Your task to perform on an android device: toggle notification dots Image 0: 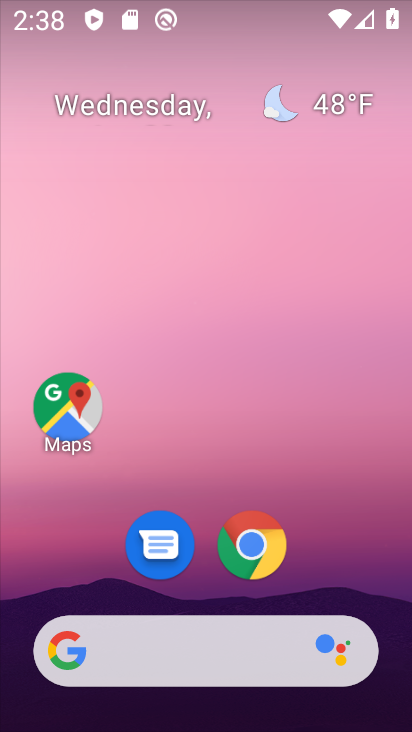
Step 0: drag from (319, 590) to (286, 124)
Your task to perform on an android device: toggle notification dots Image 1: 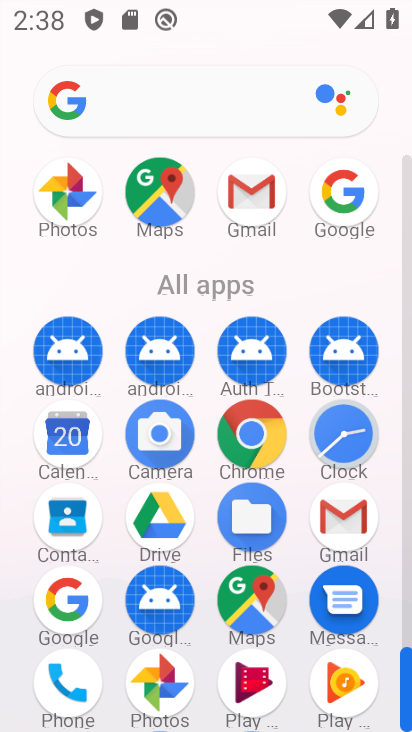
Step 1: drag from (213, 563) to (230, 159)
Your task to perform on an android device: toggle notification dots Image 2: 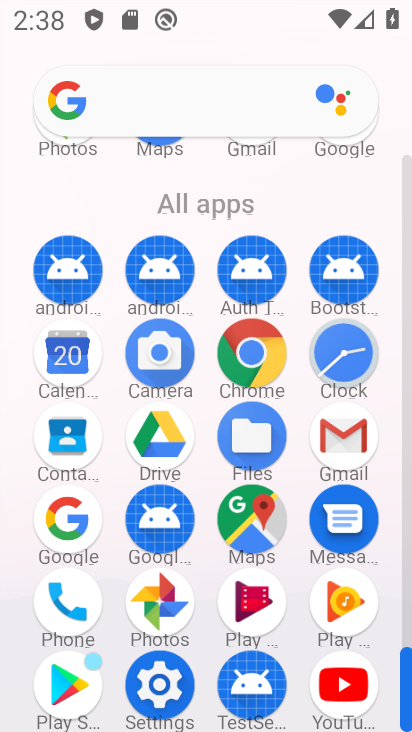
Step 2: click (183, 674)
Your task to perform on an android device: toggle notification dots Image 3: 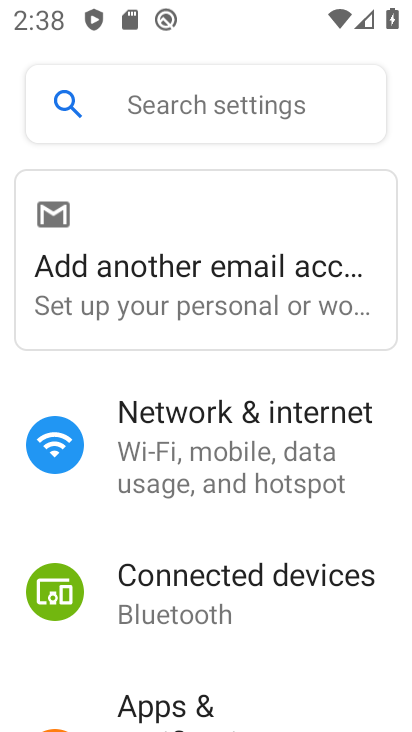
Step 3: drag from (285, 626) to (255, 277)
Your task to perform on an android device: toggle notification dots Image 4: 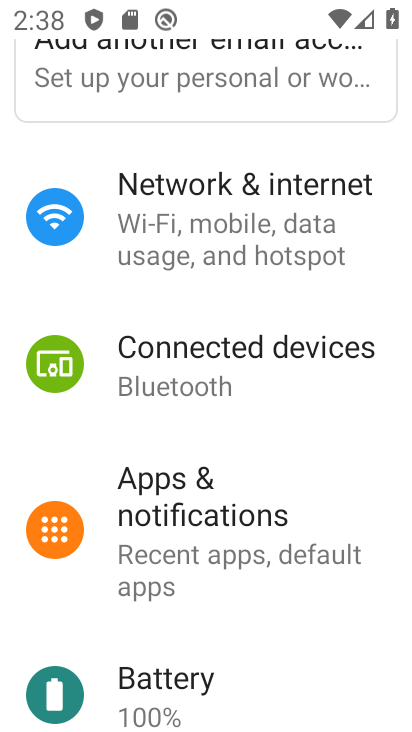
Step 4: click (243, 497)
Your task to perform on an android device: toggle notification dots Image 5: 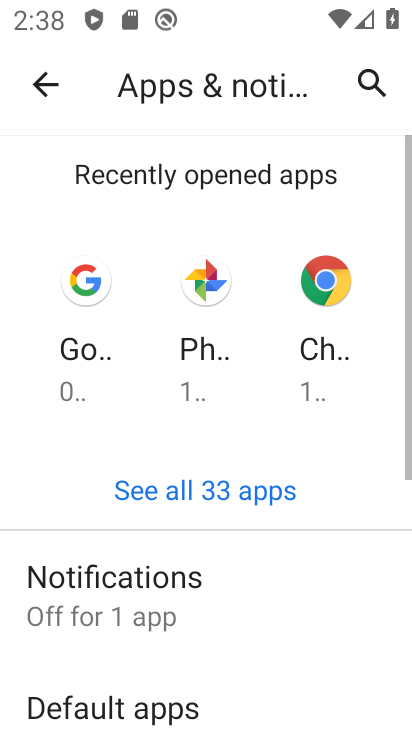
Step 5: drag from (221, 607) to (216, 152)
Your task to perform on an android device: toggle notification dots Image 6: 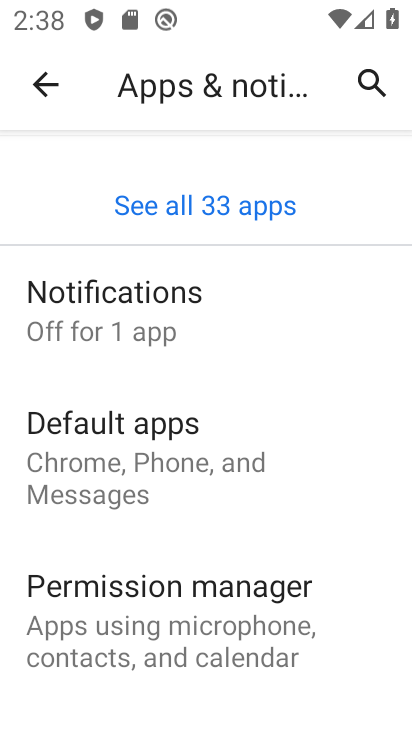
Step 6: click (183, 301)
Your task to perform on an android device: toggle notification dots Image 7: 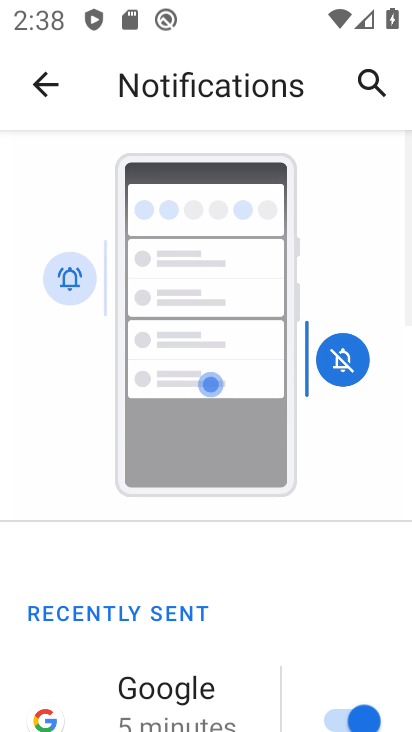
Step 7: drag from (221, 612) to (201, 134)
Your task to perform on an android device: toggle notification dots Image 8: 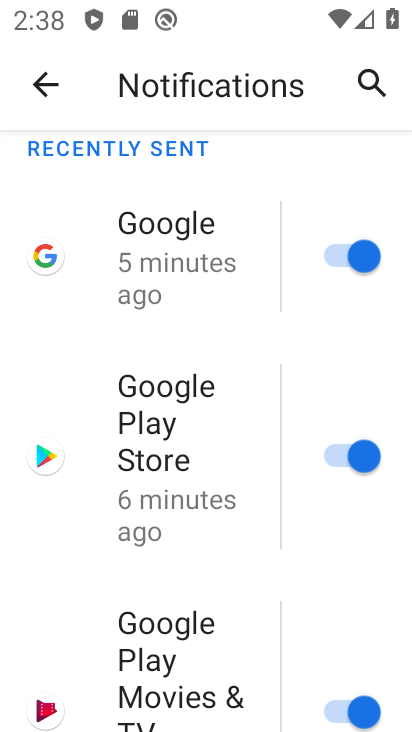
Step 8: drag from (166, 472) to (200, 140)
Your task to perform on an android device: toggle notification dots Image 9: 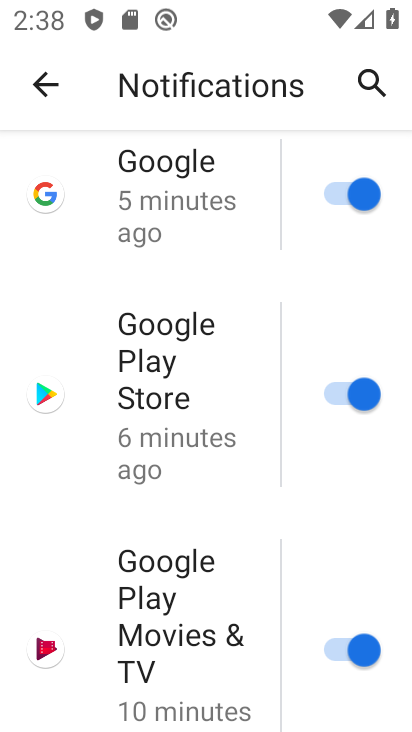
Step 9: drag from (154, 598) to (148, 60)
Your task to perform on an android device: toggle notification dots Image 10: 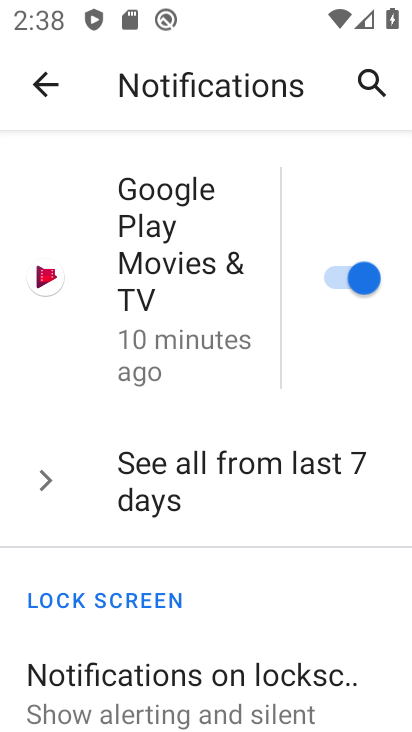
Step 10: drag from (213, 682) to (223, 140)
Your task to perform on an android device: toggle notification dots Image 11: 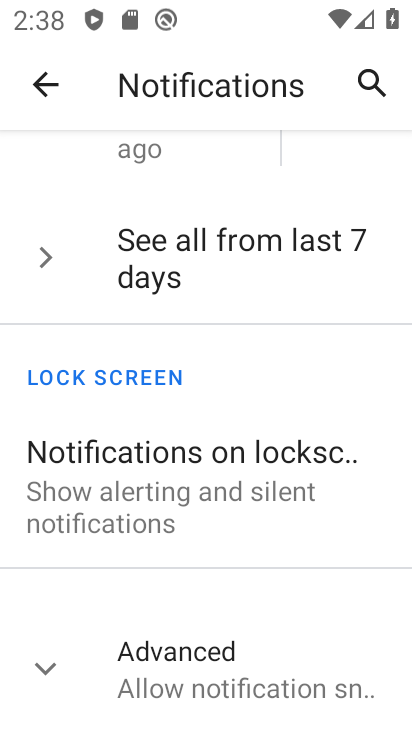
Step 11: click (209, 654)
Your task to perform on an android device: toggle notification dots Image 12: 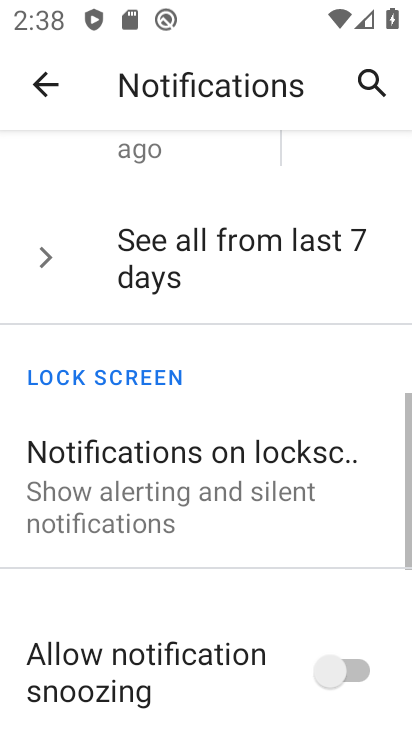
Step 12: drag from (209, 654) to (227, 218)
Your task to perform on an android device: toggle notification dots Image 13: 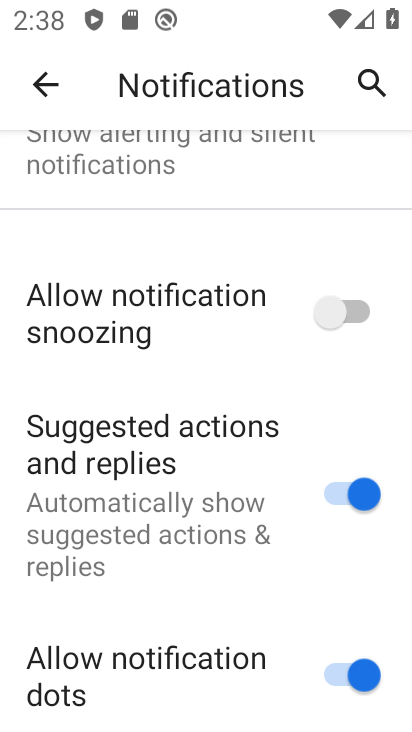
Step 13: click (331, 695)
Your task to perform on an android device: toggle notification dots Image 14: 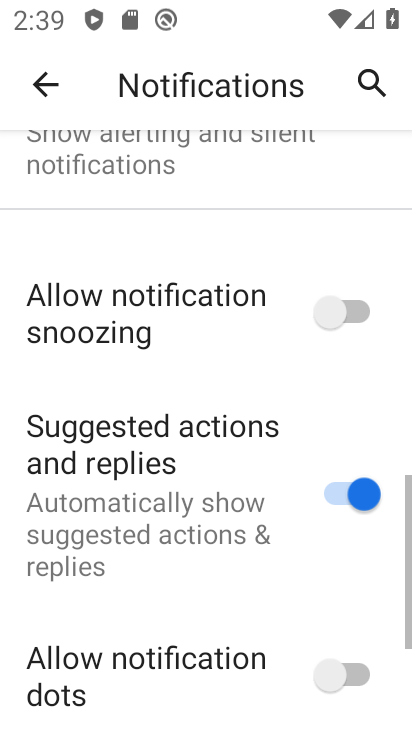
Step 14: task complete